Your task to perform on an android device: Open Youtube and go to "Your channel" Image 0: 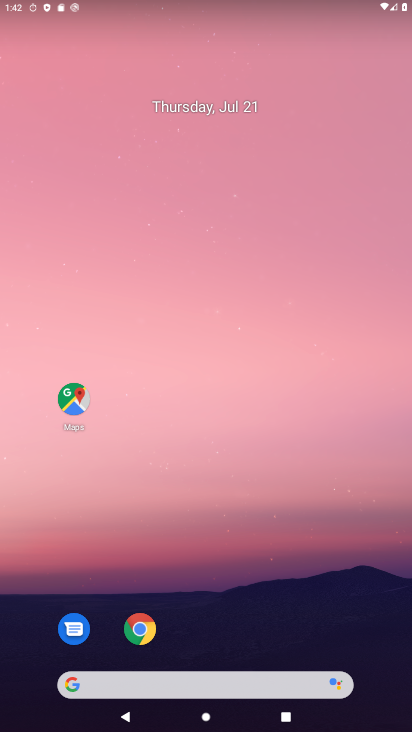
Step 0: drag from (98, 571) to (245, 154)
Your task to perform on an android device: Open Youtube and go to "Your channel" Image 1: 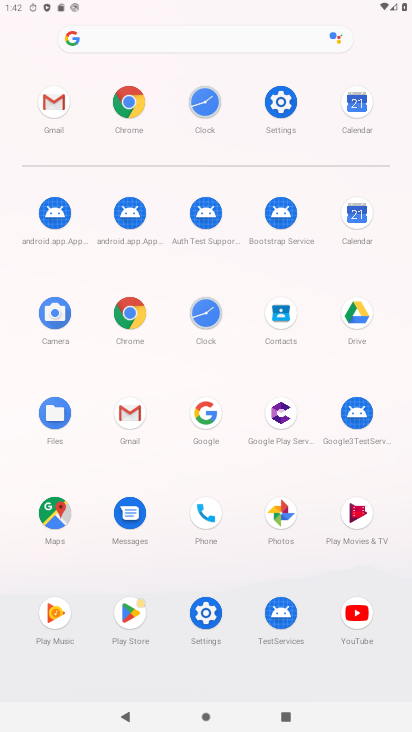
Step 1: click (355, 616)
Your task to perform on an android device: Open Youtube and go to "Your channel" Image 2: 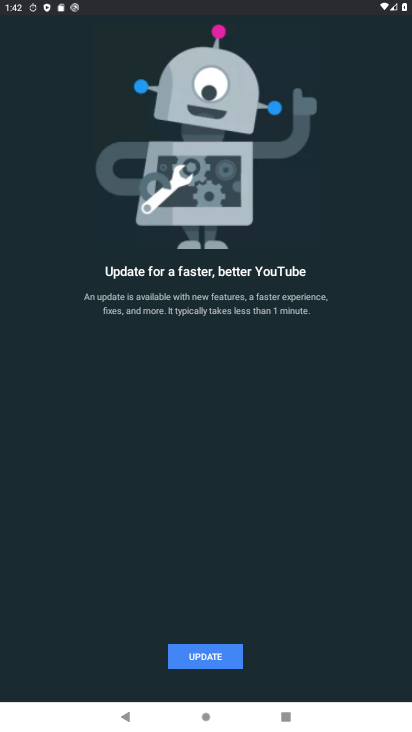
Step 2: click (202, 662)
Your task to perform on an android device: Open Youtube and go to "Your channel" Image 3: 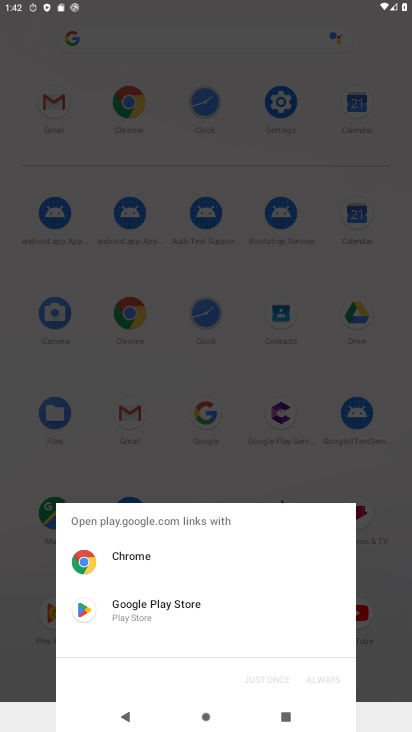
Step 3: click (144, 614)
Your task to perform on an android device: Open Youtube and go to "Your channel" Image 4: 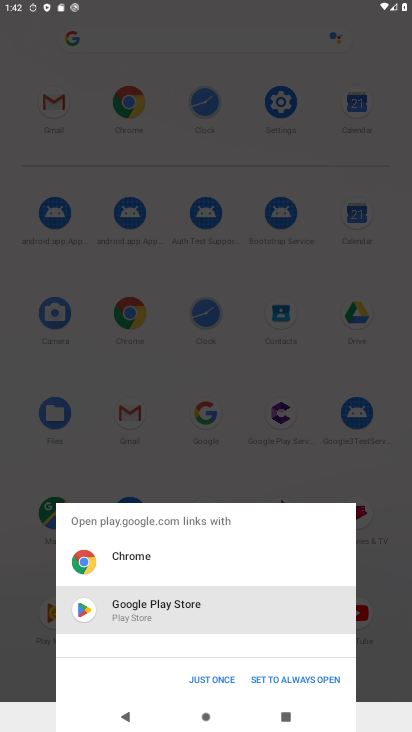
Step 4: click (211, 663)
Your task to perform on an android device: Open Youtube and go to "Your channel" Image 5: 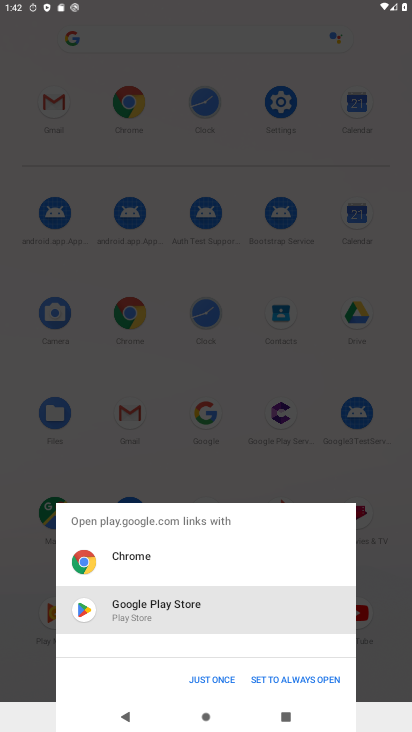
Step 5: click (201, 680)
Your task to perform on an android device: Open Youtube and go to "Your channel" Image 6: 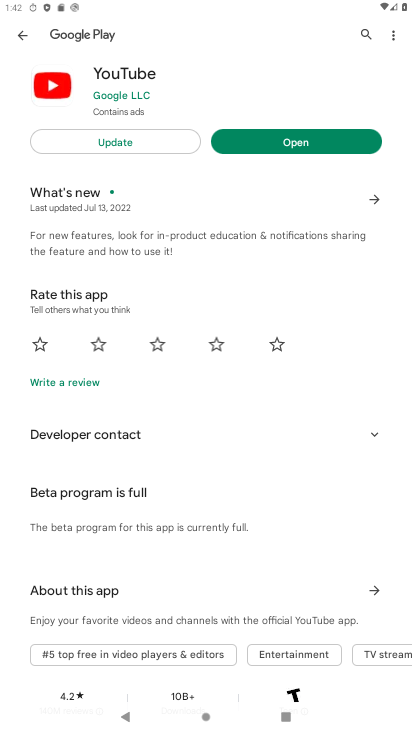
Step 6: click (295, 142)
Your task to perform on an android device: Open Youtube and go to "Your channel" Image 7: 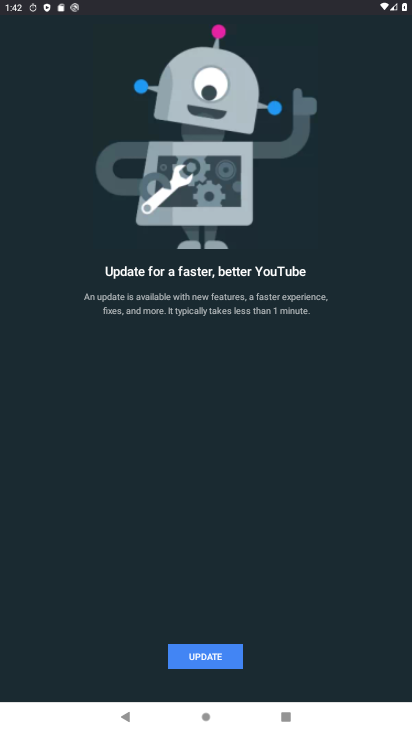
Step 7: task complete